Your task to perform on an android device: create a new album in the google photos Image 0: 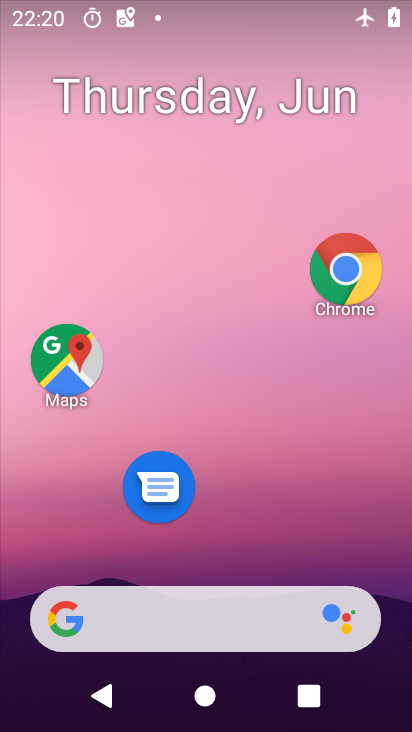
Step 0: drag from (213, 556) to (279, 273)
Your task to perform on an android device: create a new album in the google photos Image 1: 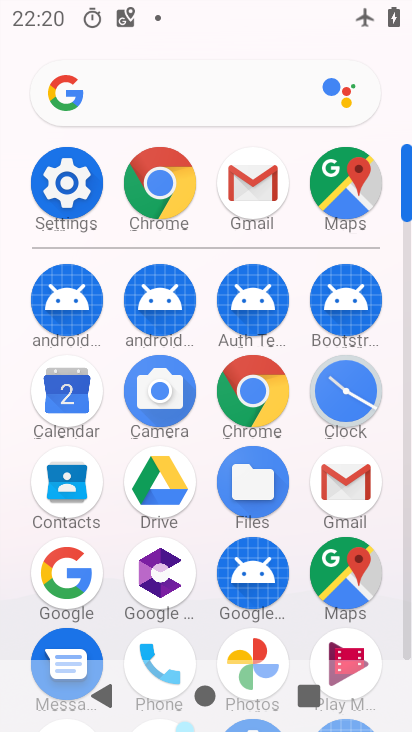
Step 1: click (247, 660)
Your task to perform on an android device: create a new album in the google photos Image 2: 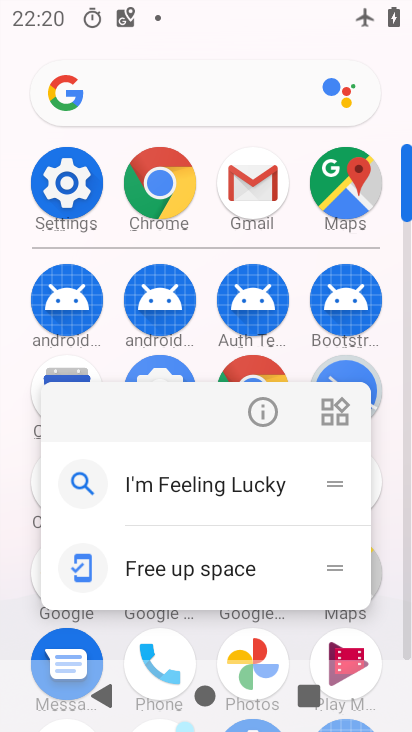
Step 2: click (264, 414)
Your task to perform on an android device: create a new album in the google photos Image 3: 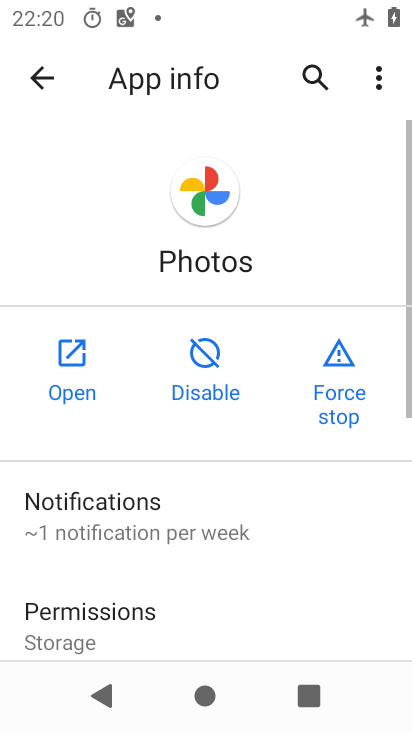
Step 3: click (66, 340)
Your task to perform on an android device: create a new album in the google photos Image 4: 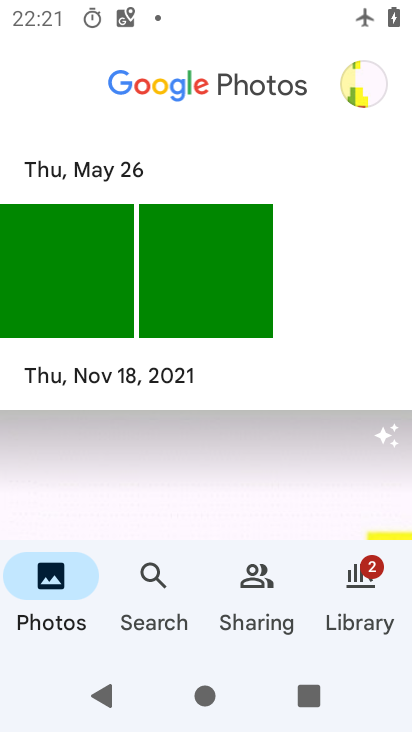
Step 4: click (368, 583)
Your task to perform on an android device: create a new album in the google photos Image 5: 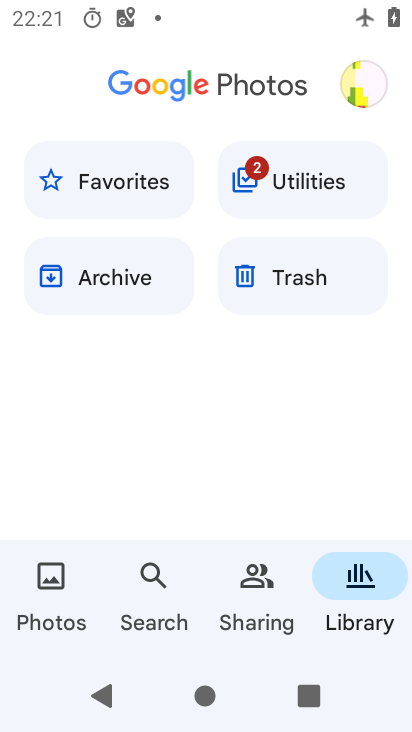
Step 5: drag from (166, 387) to (249, 96)
Your task to perform on an android device: create a new album in the google photos Image 6: 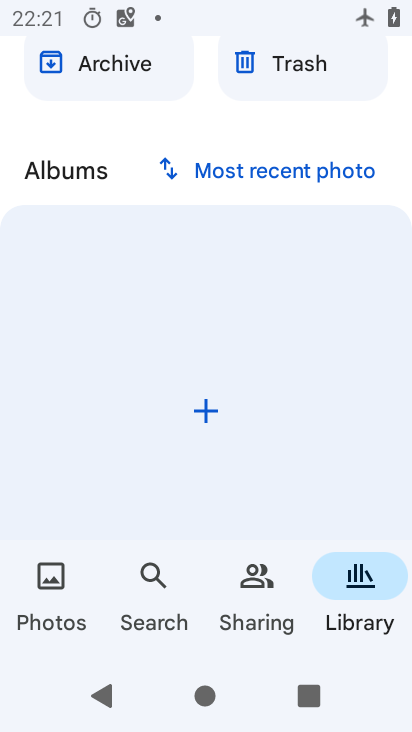
Step 6: click (211, 410)
Your task to perform on an android device: create a new album in the google photos Image 7: 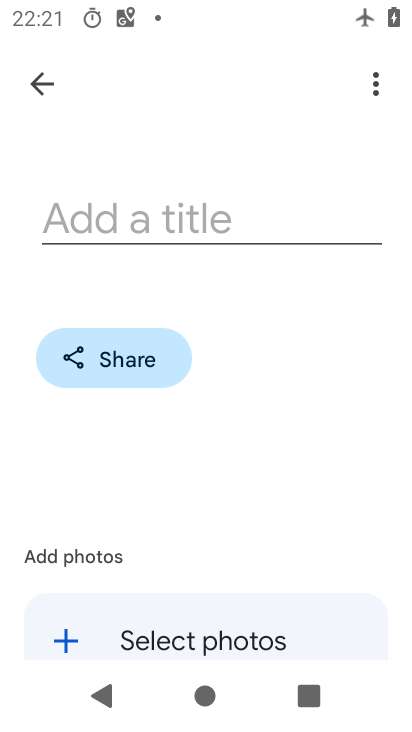
Step 7: click (90, 220)
Your task to perform on an android device: create a new album in the google photos Image 8: 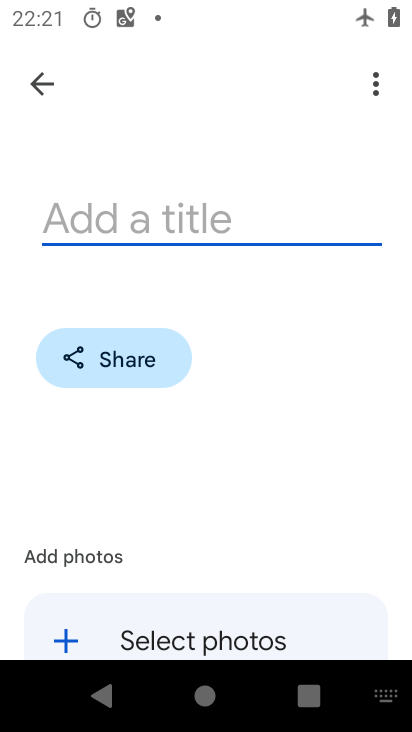
Step 8: type "mnvc"
Your task to perform on an android device: create a new album in the google photos Image 9: 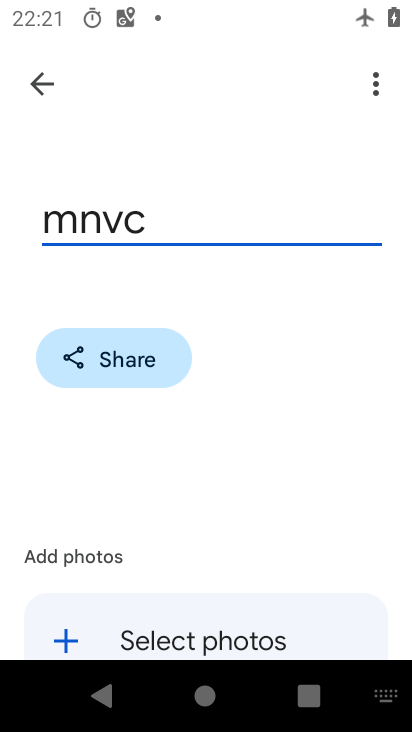
Step 9: drag from (222, 563) to (229, 126)
Your task to perform on an android device: create a new album in the google photos Image 10: 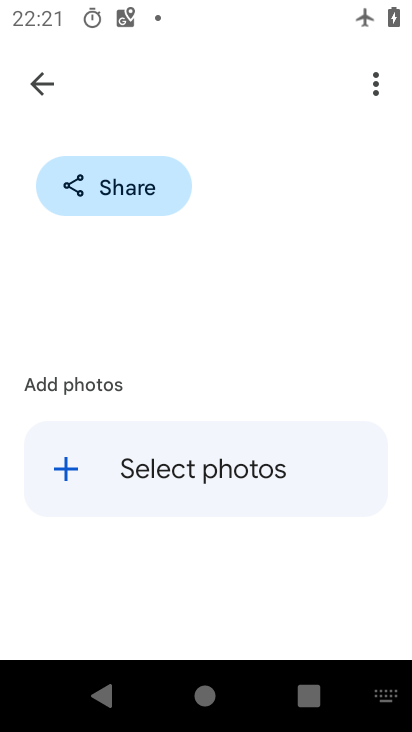
Step 10: click (82, 470)
Your task to perform on an android device: create a new album in the google photos Image 11: 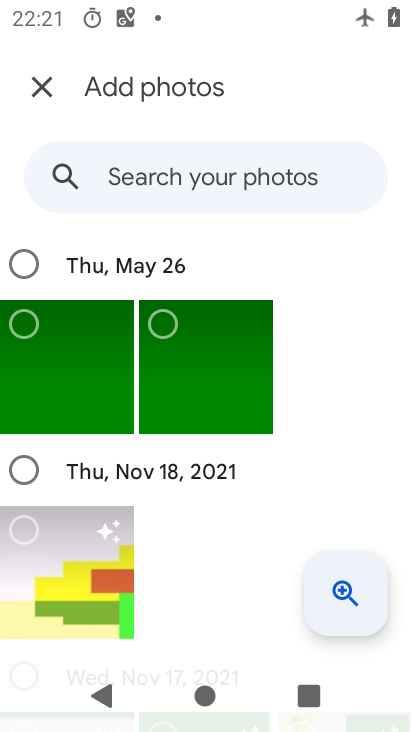
Step 11: click (60, 376)
Your task to perform on an android device: create a new album in the google photos Image 12: 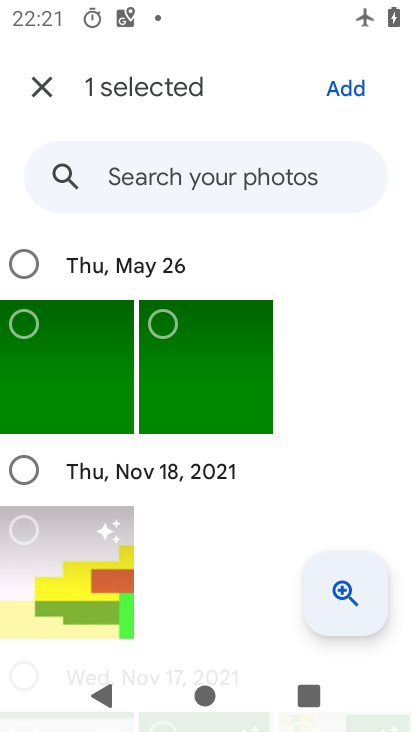
Step 12: click (166, 374)
Your task to perform on an android device: create a new album in the google photos Image 13: 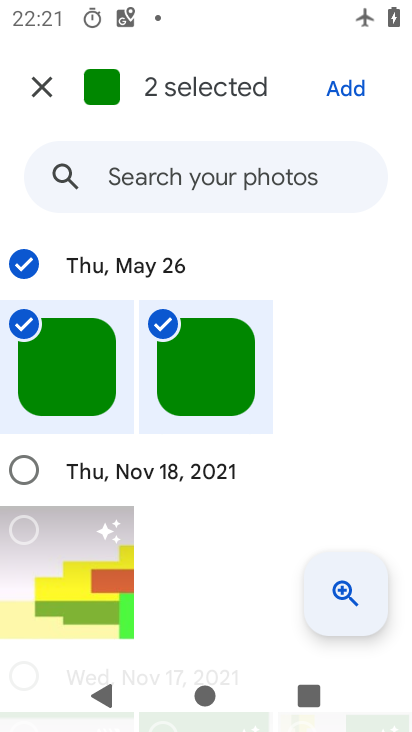
Step 13: task complete